Your task to perform on an android device: Clear all items from cart on ebay.com. Image 0: 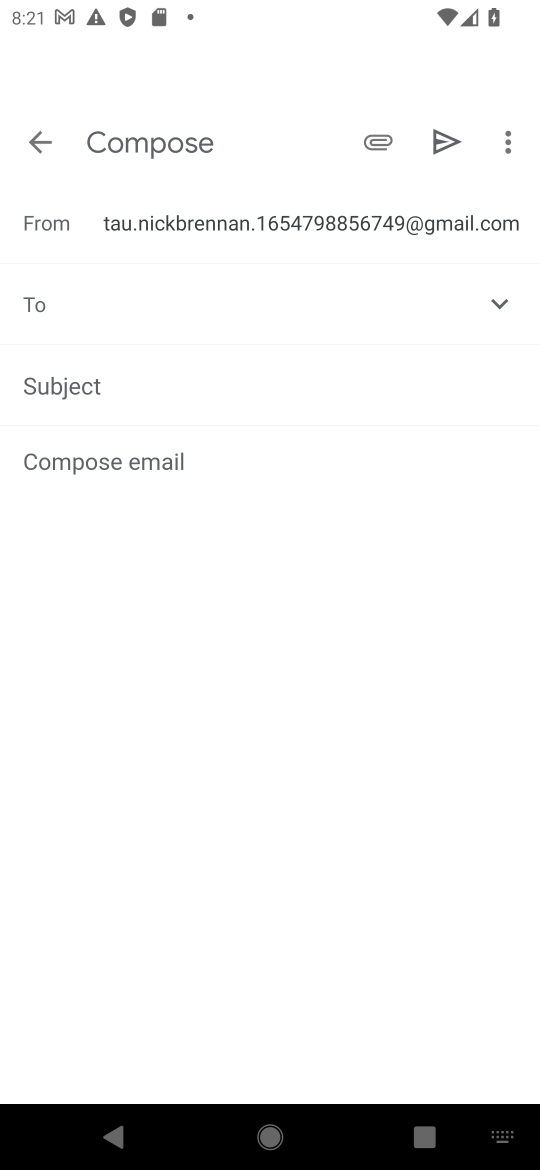
Step 0: press home button
Your task to perform on an android device: Clear all items from cart on ebay.com. Image 1: 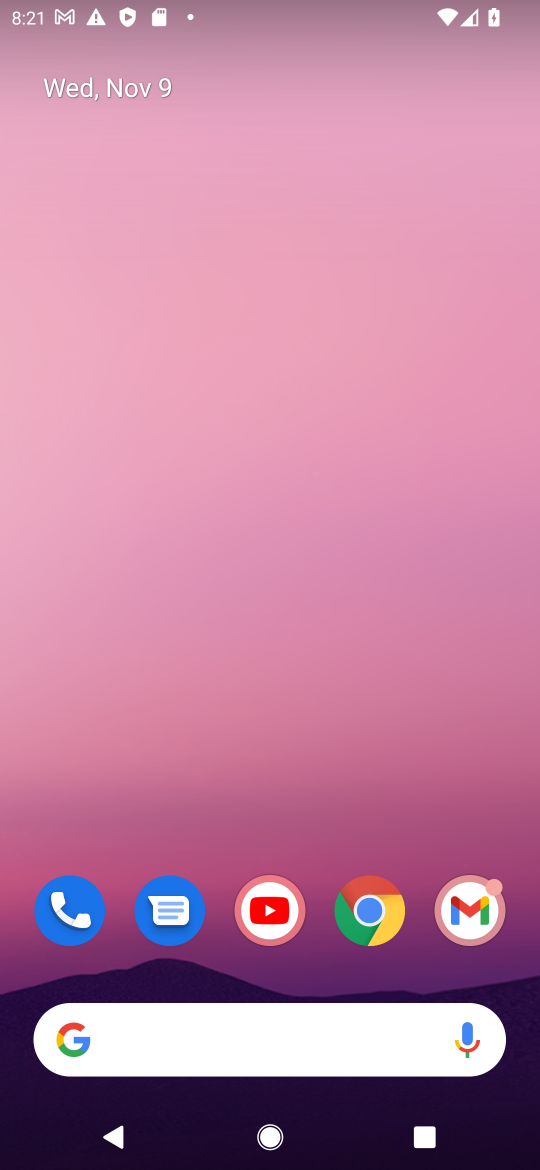
Step 1: click (370, 911)
Your task to perform on an android device: Clear all items from cart on ebay.com. Image 2: 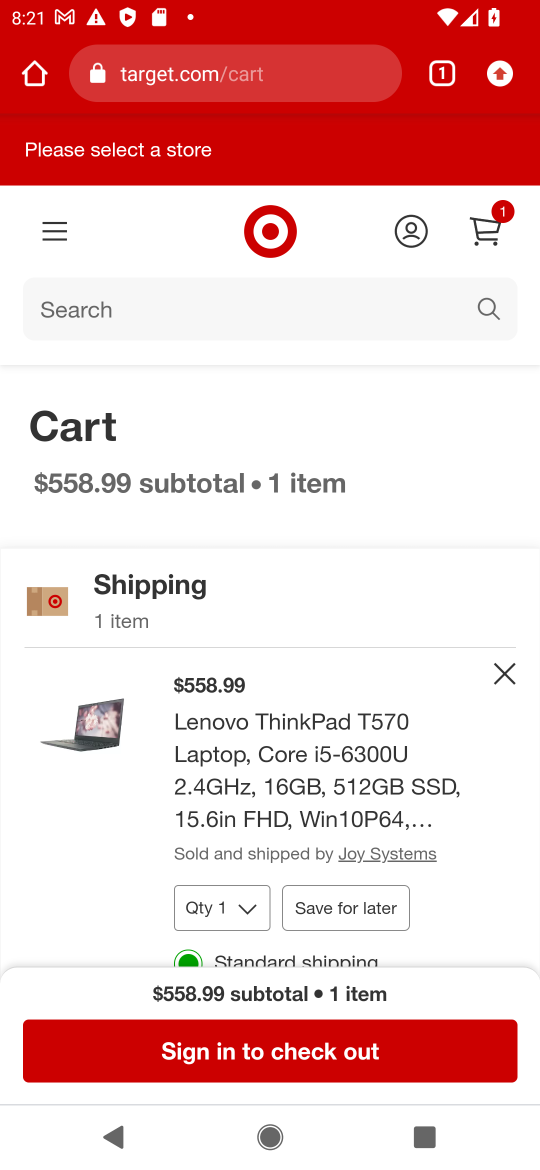
Step 2: click (215, 91)
Your task to perform on an android device: Clear all items from cart on ebay.com. Image 3: 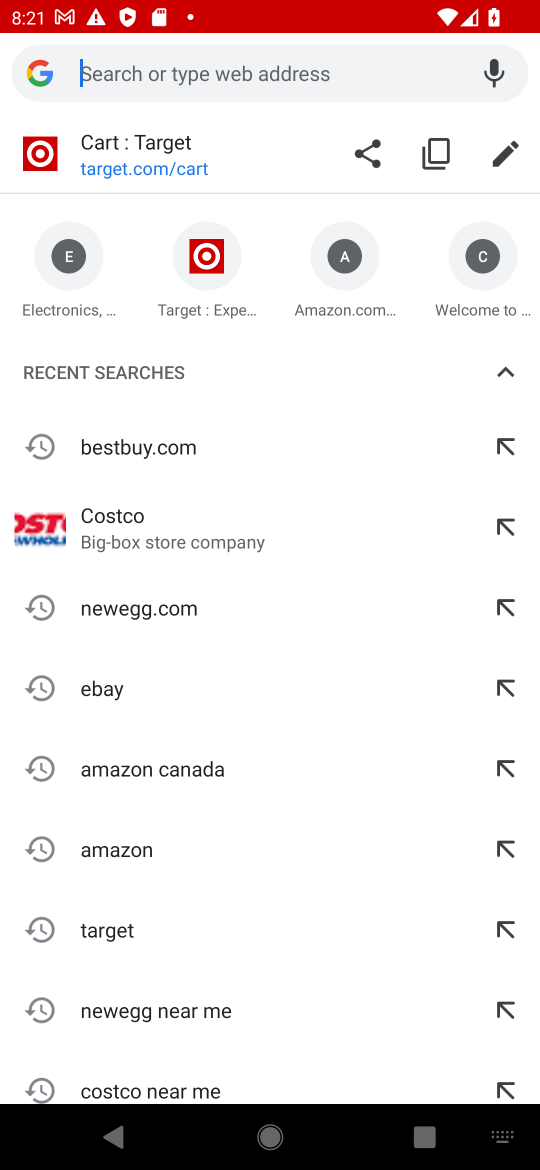
Step 3: type "ebay.com"
Your task to perform on an android device: Clear all items from cart on ebay.com. Image 4: 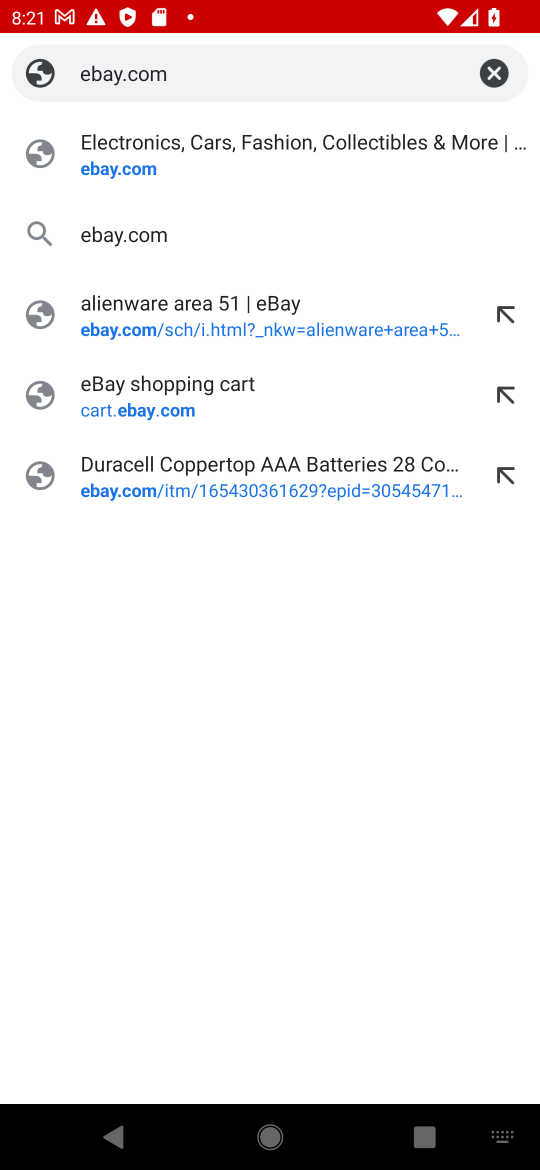
Step 4: click (110, 156)
Your task to perform on an android device: Clear all items from cart on ebay.com. Image 5: 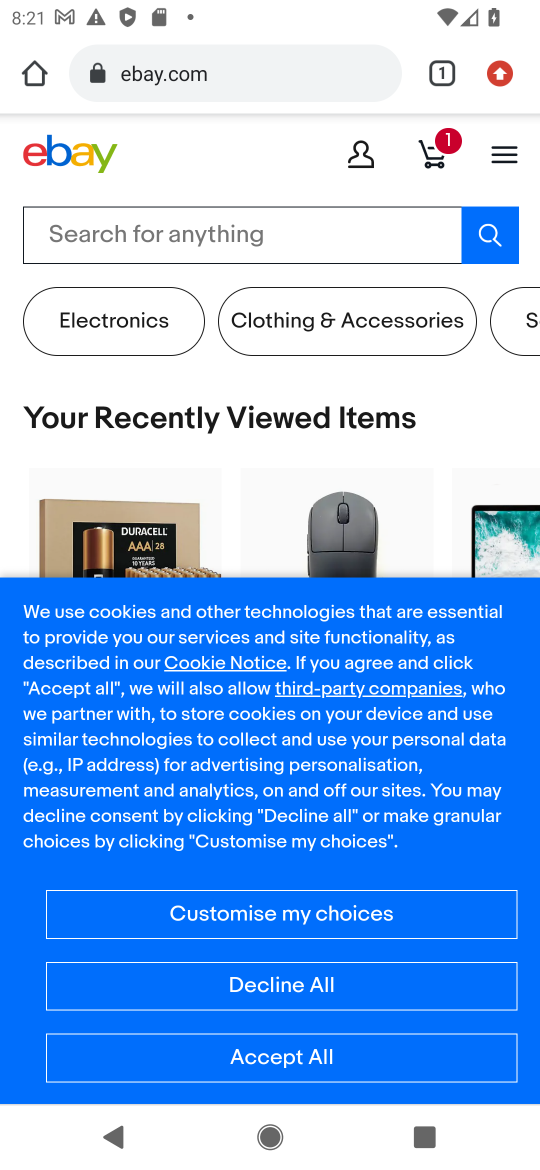
Step 5: click (429, 157)
Your task to perform on an android device: Clear all items from cart on ebay.com. Image 6: 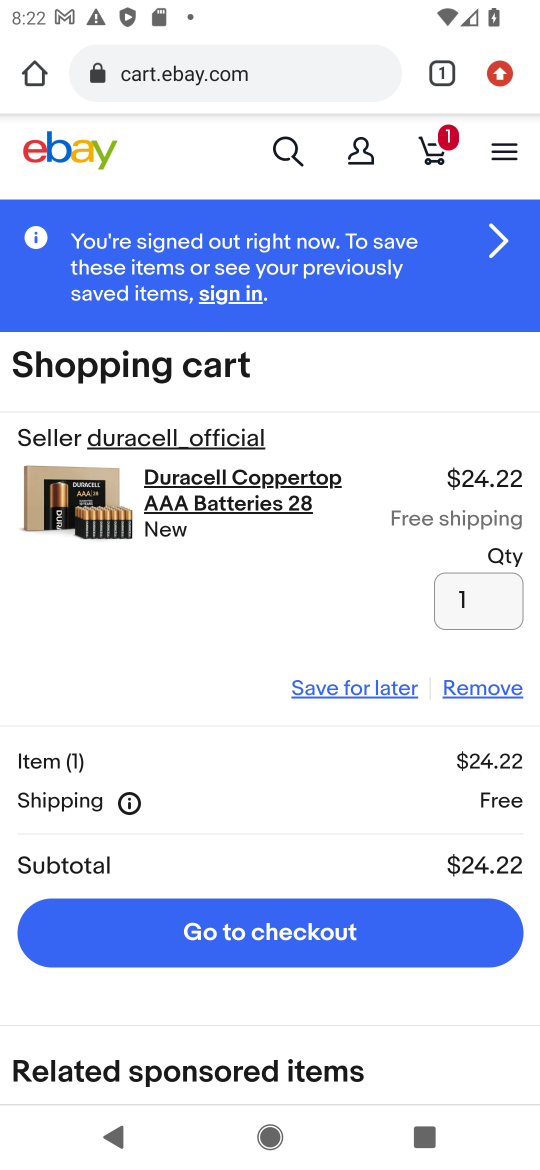
Step 6: click (502, 692)
Your task to perform on an android device: Clear all items from cart on ebay.com. Image 7: 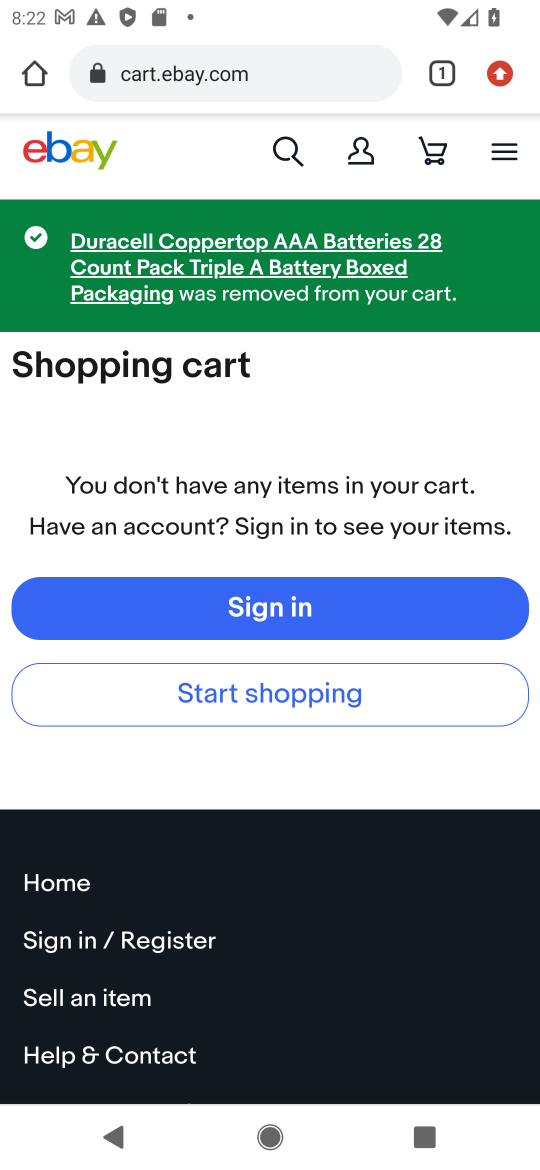
Step 7: task complete